Your task to perform on an android device: Open calendar and show me the third week of next month Image 0: 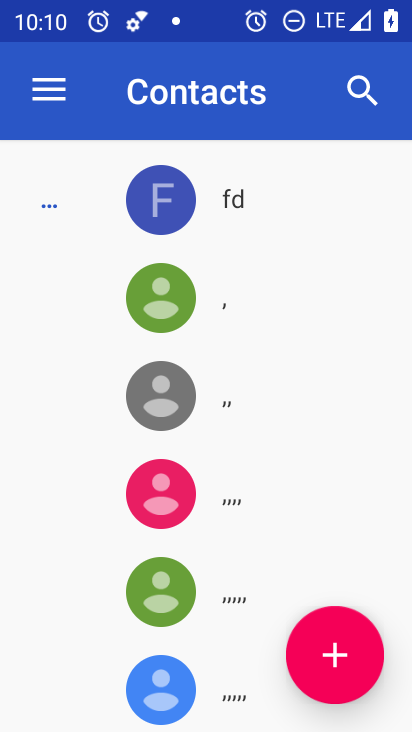
Step 0: press back button
Your task to perform on an android device: Open calendar and show me the third week of next month Image 1: 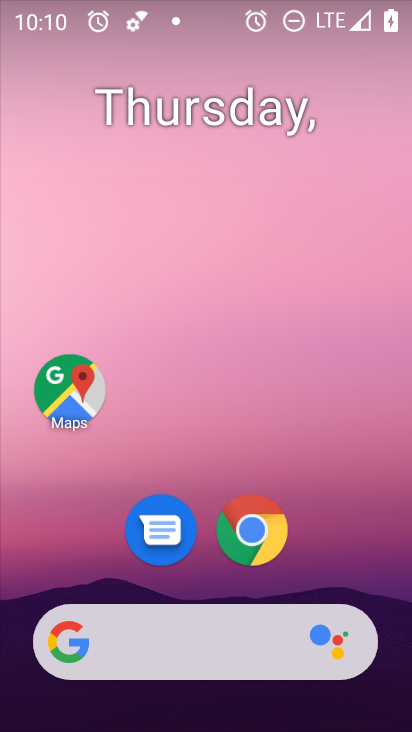
Step 1: drag from (336, 576) to (259, 36)
Your task to perform on an android device: Open calendar and show me the third week of next month Image 2: 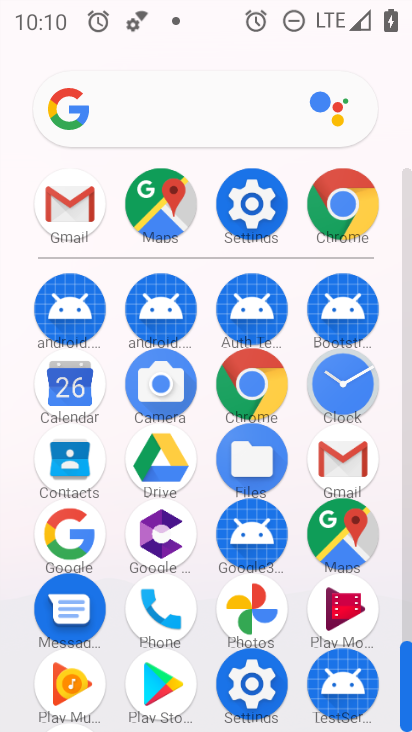
Step 2: click (70, 382)
Your task to perform on an android device: Open calendar and show me the third week of next month Image 3: 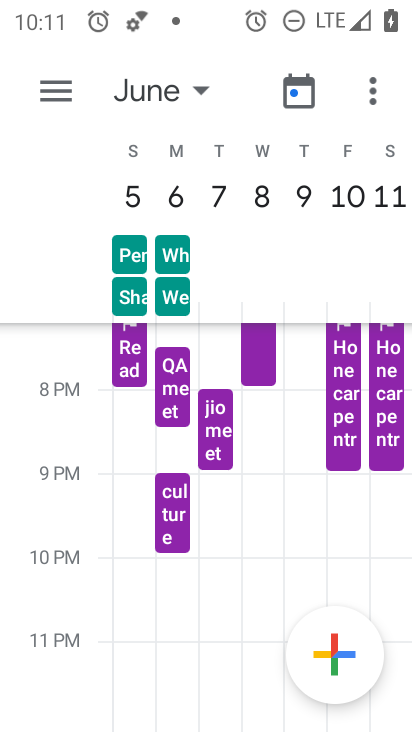
Step 3: click (63, 89)
Your task to perform on an android device: Open calendar and show me the third week of next month Image 4: 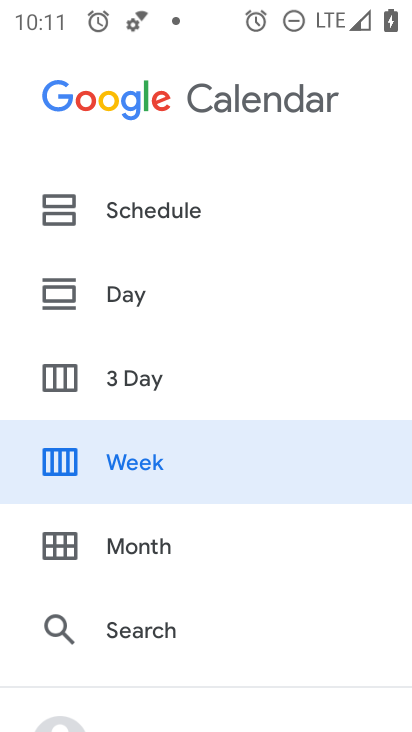
Step 4: drag from (235, 552) to (224, 157)
Your task to perform on an android device: Open calendar and show me the third week of next month Image 5: 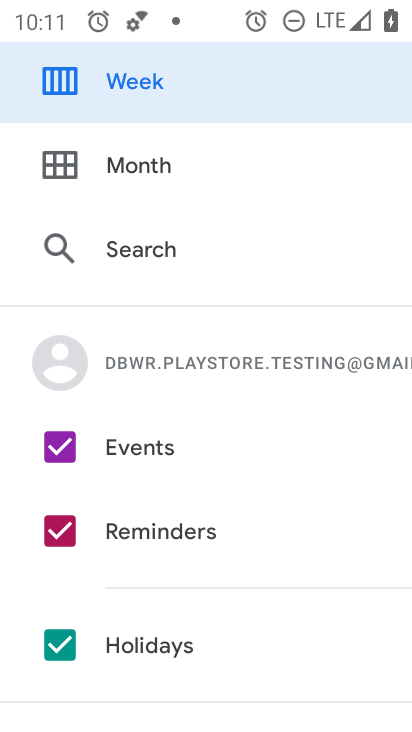
Step 5: drag from (271, 576) to (282, 201)
Your task to perform on an android device: Open calendar and show me the third week of next month Image 6: 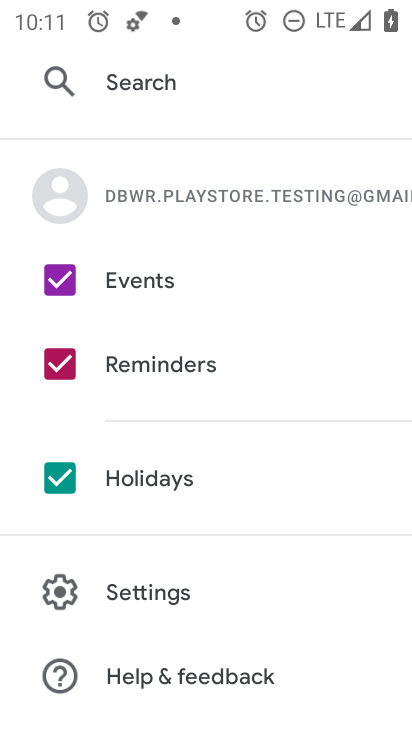
Step 6: drag from (243, 194) to (256, 644)
Your task to perform on an android device: Open calendar and show me the third week of next month Image 7: 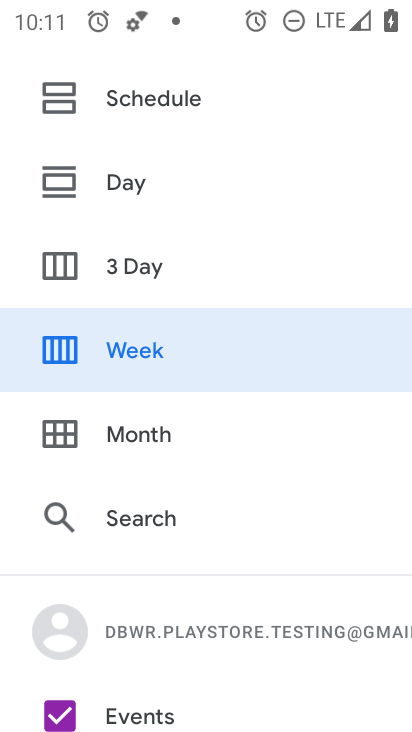
Step 7: click (141, 436)
Your task to perform on an android device: Open calendar and show me the third week of next month Image 8: 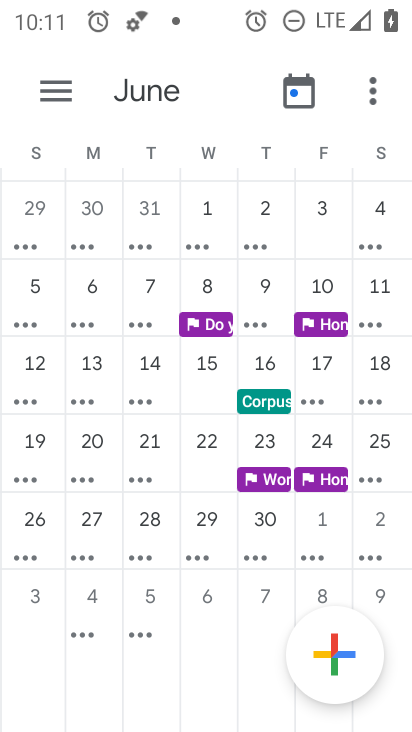
Step 8: click (26, 377)
Your task to perform on an android device: Open calendar and show me the third week of next month Image 9: 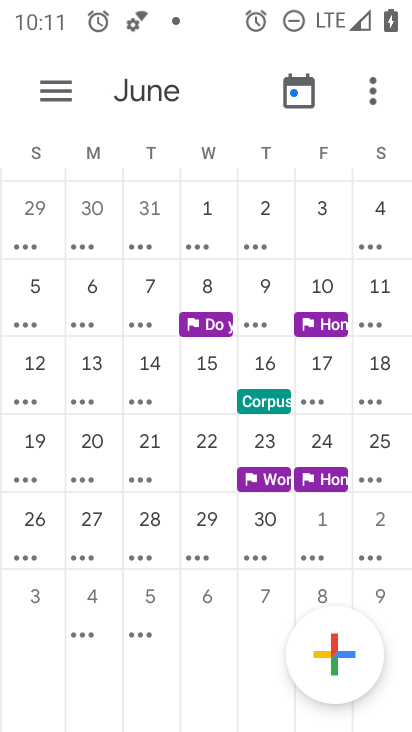
Step 9: click (30, 363)
Your task to perform on an android device: Open calendar and show me the third week of next month Image 10: 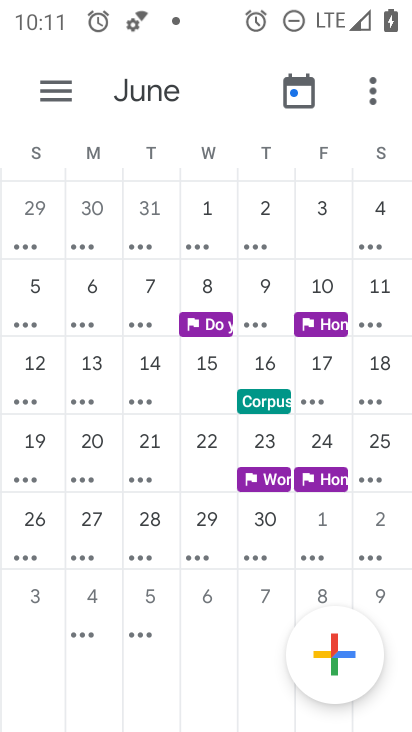
Step 10: click (30, 362)
Your task to perform on an android device: Open calendar and show me the third week of next month Image 11: 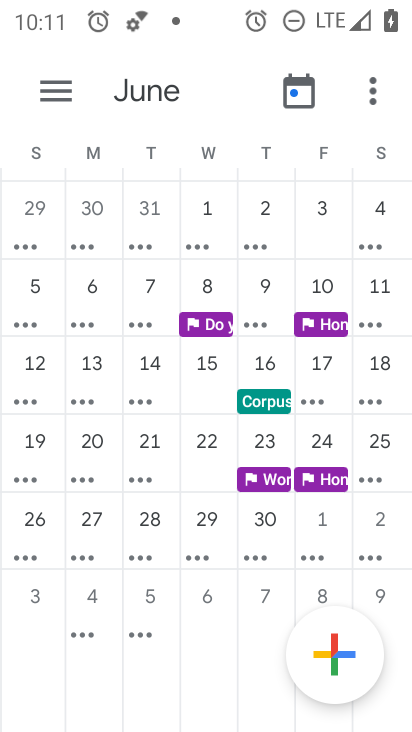
Step 11: click (33, 361)
Your task to perform on an android device: Open calendar and show me the third week of next month Image 12: 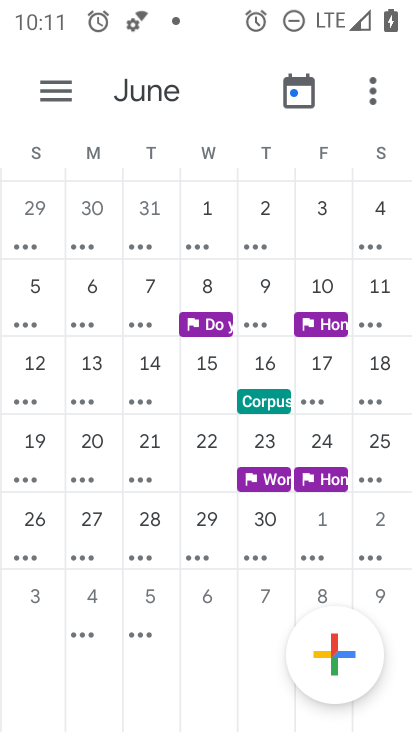
Step 12: click (90, 364)
Your task to perform on an android device: Open calendar and show me the third week of next month Image 13: 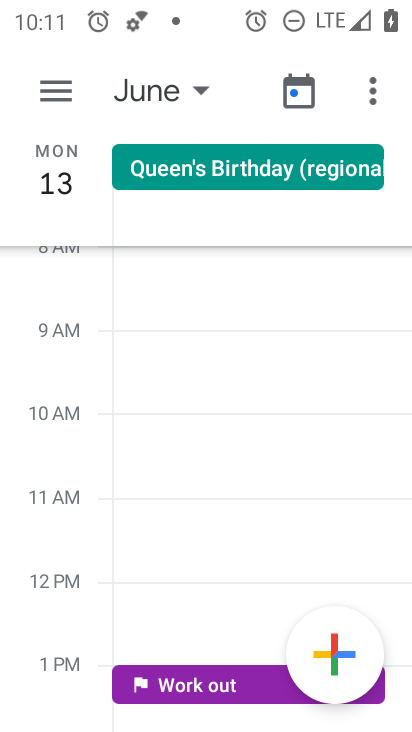
Step 13: click (53, 76)
Your task to perform on an android device: Open calendar and show me the third week of next month Image 14: 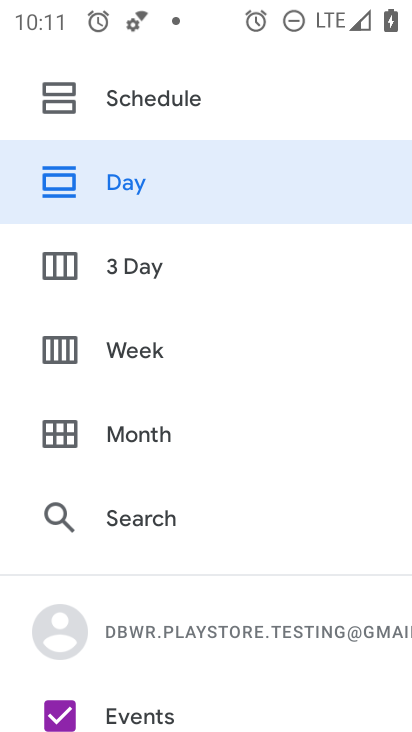
Step 14: click (171, 347)
Your task to perform on an android device: Open calendar and show me the third week of next month Image 15: 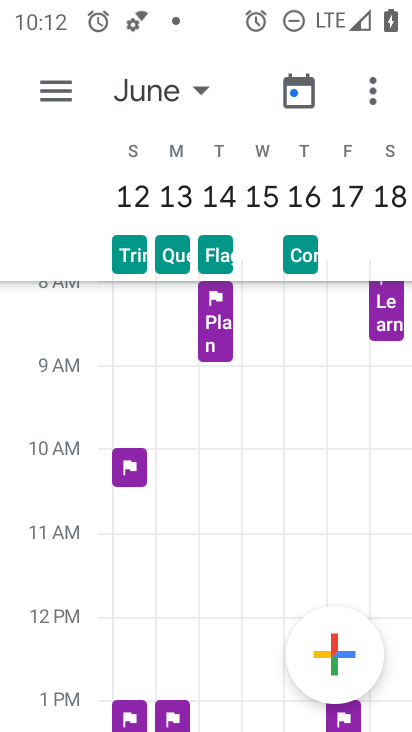
Step 15: task complete